Your task to perform on an android device: Show me the alarms in the clock app Image 0: 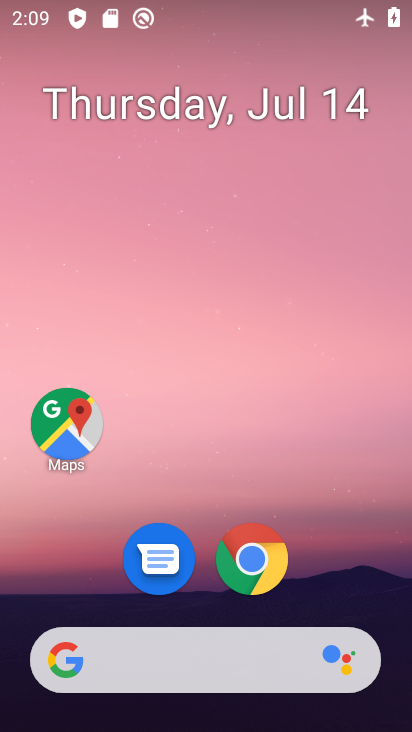
Step 0: drag from (219, 704) to (306, 18)
Your task to perform on an android device: Show me the alarms in the clock app Image 1: 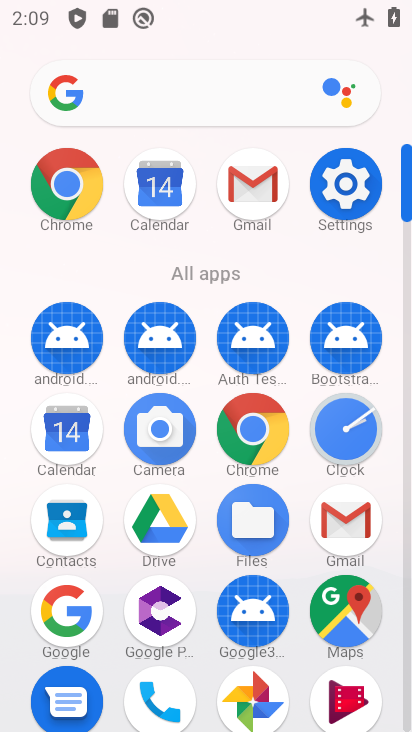
Step 1: click (332, 436)
Your task to perform on an android device: Show me the alarms in the clock app Image 2: 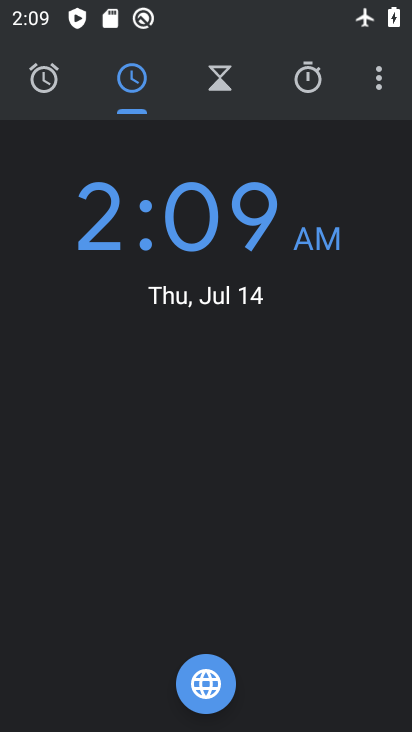
Step 2: click (62, 80)
Your task to perform on an android device: Show me the alarms in the clock app Image 3: 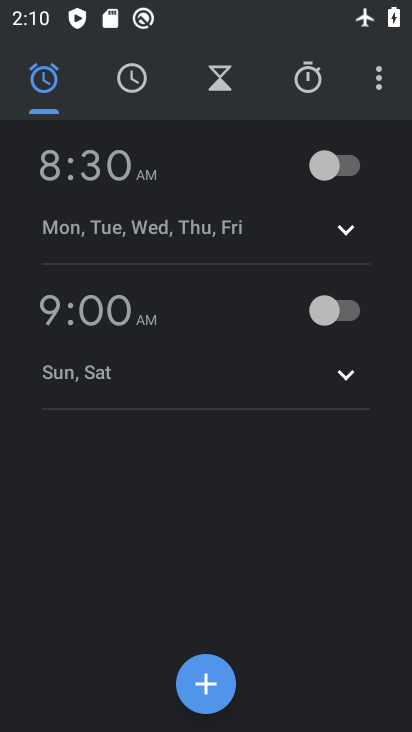
Step 3: task complete